Your task to perform on an android device: change the clock display to show seconds Image 0: 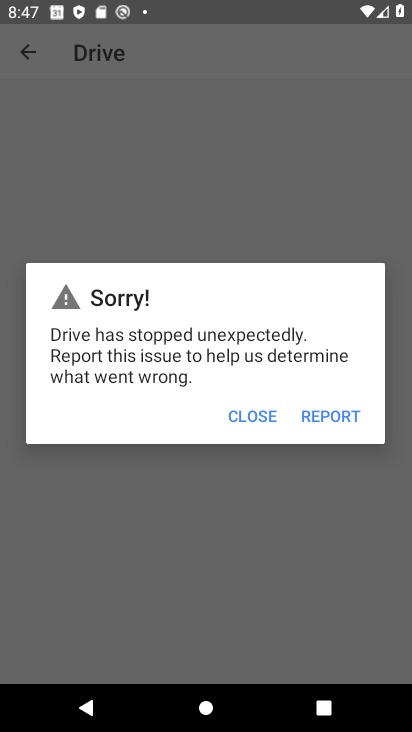
Step 0: press home button
Your task to perform on an android device: change the clock display to show seconds Image 1: 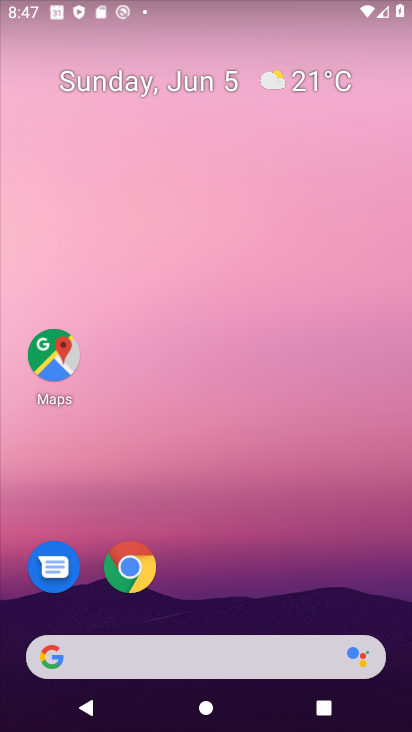
Step 1: drag from (155, 603) to (210, 339)
Your task to perform on an android device: change the clock display to show seconds Image 2: 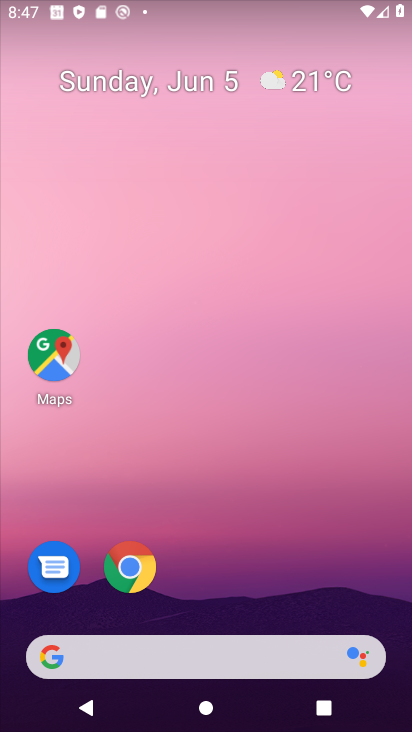
Step 2: drag from (291, 604) to (303, 290)
Your task to perform on an android device: change the clock display to show seconds Image 3: 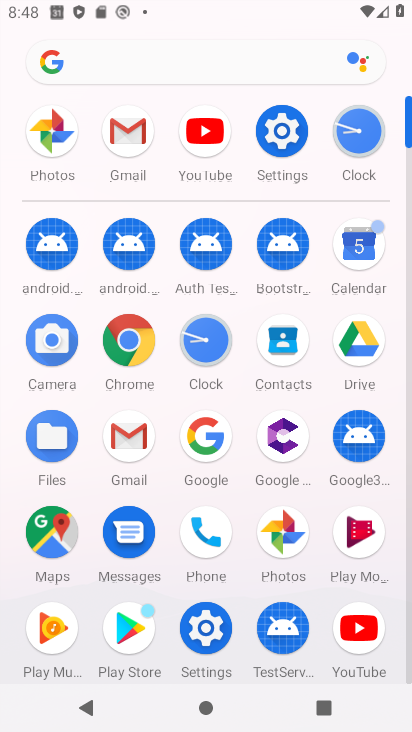
Step 3: click (206, 336)
Your task to perform on an android device: change the clock display to show seconds Image 4: 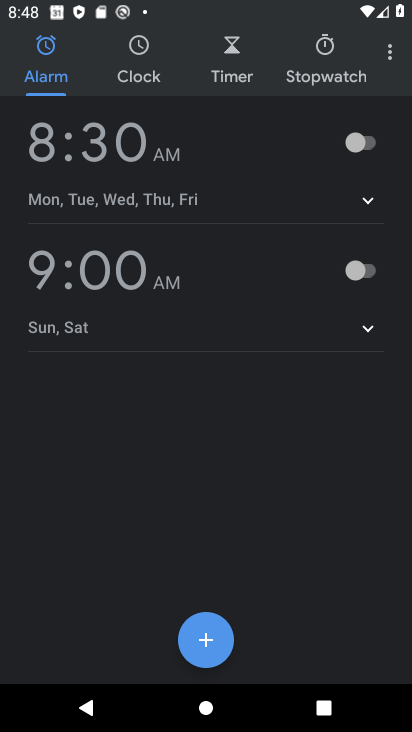
Step 4: click (392, 49)
Your task to perform on an android device: change the clock display to show seconds Image 5: 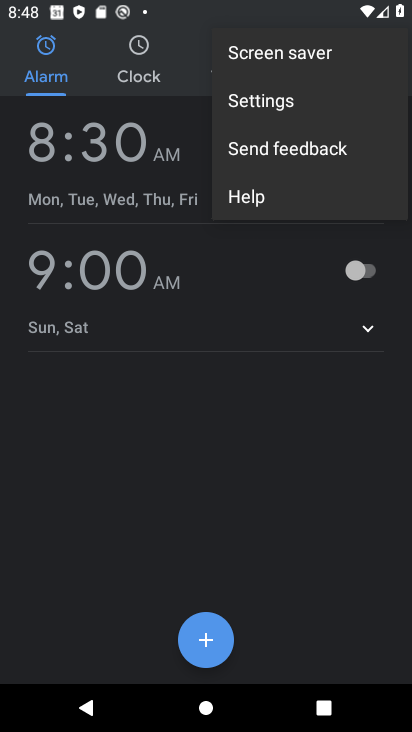
Step 5: click (264, 106)
Your task to perform on an android device: change the clock display to show seconds Image 6: 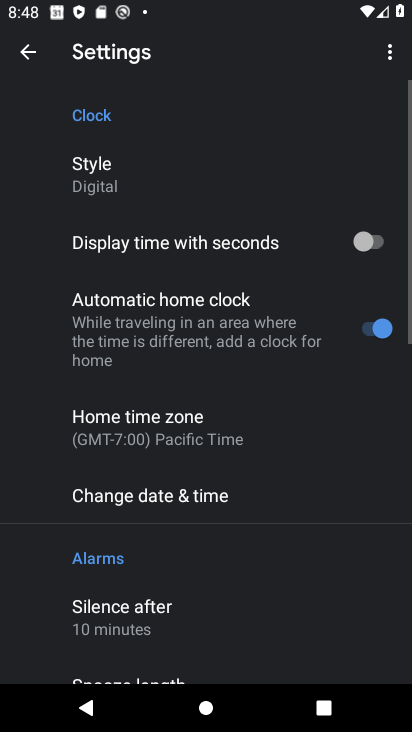
Step 6: click (377, 243)
Your task to perform on an android device: change the clock display to show seconds Image 7: 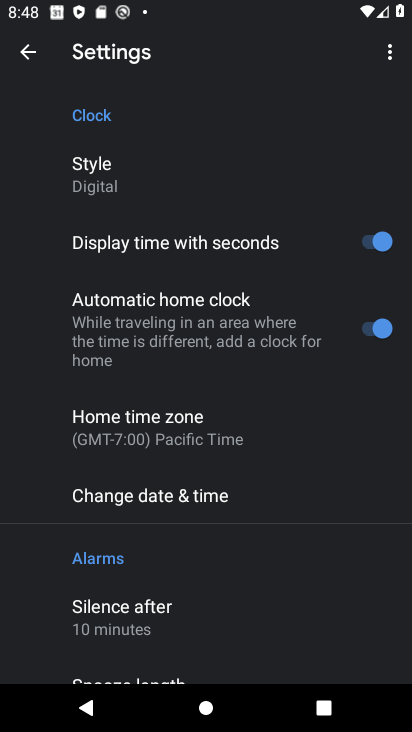
Step 7: task complete